Your task to perform on an android device: Go to wifi settings Image 0: 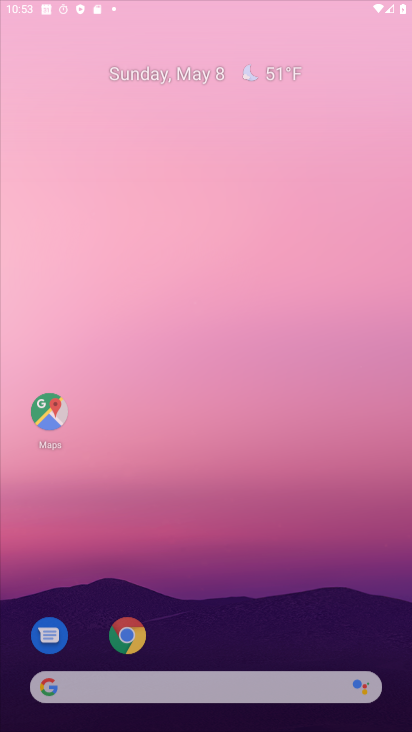
Step 0: click (287, 256)
Your task to perform on an android device: Go to wifi settings Image 1: 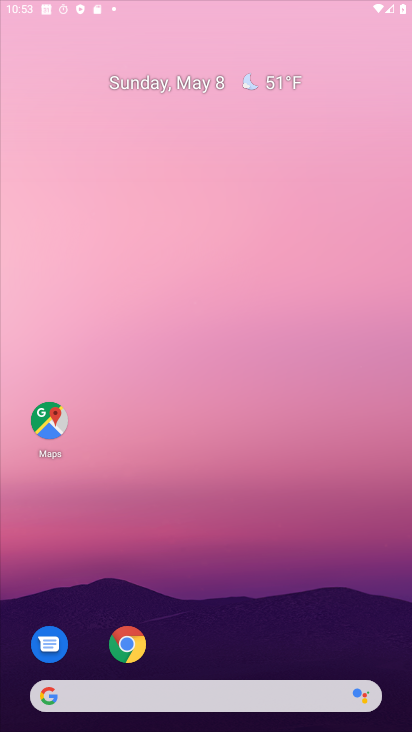
Step 1: drag from (278, 609) to (334, 230)
Your task to perform on an android device: Go to wifi settings Image 2: 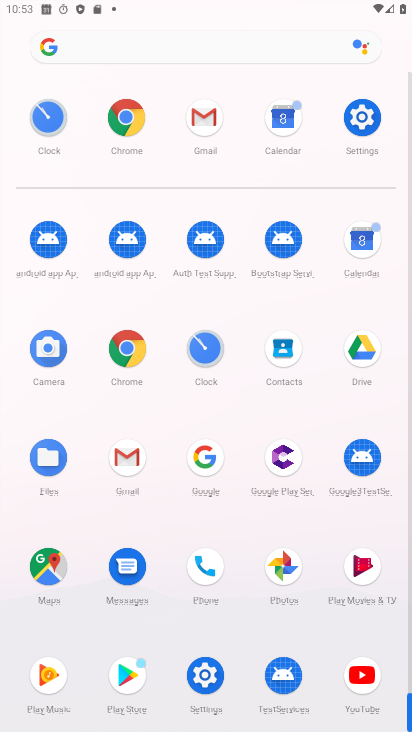
Step 2: click (130, 466)
Your task to perform on an android device: Go to wifi settings Image 3: 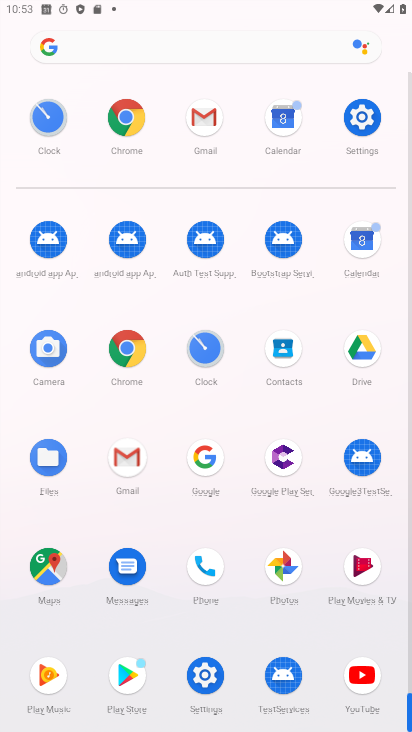
Step 3: click (129, 466)
Your task to perform on an android device: Go to wifi settings Image 4: 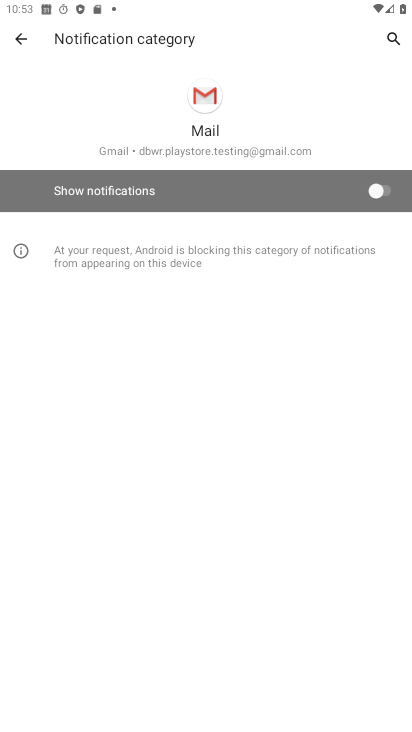
Step 4: click (23, 35)
Your task to perform on an android device: Go to wifi settings Image 5: 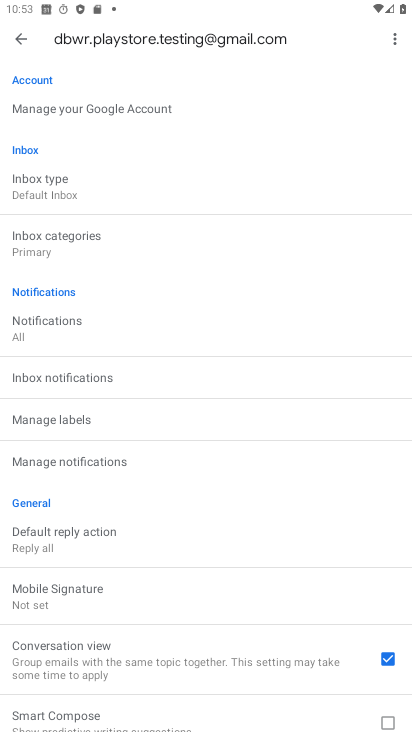
Step 5: press home button
Your task to perform on an android device: Go to wifi settings Image 6: 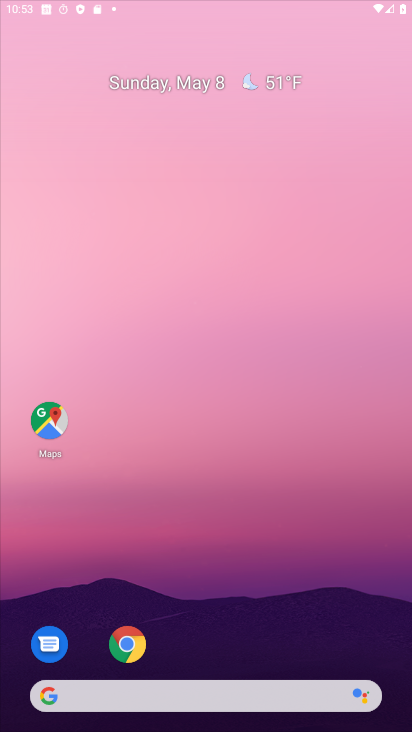
Step 6: drag from (223, 425) to (280, 75)
Your task to perform on an android device: Go to wifi settings Image 7: 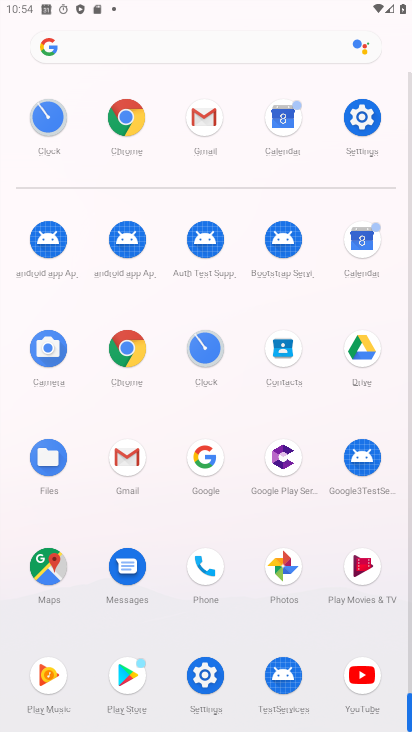
Step 7: click (355, 122)
Your task to perform on an android device: Go to wifi settings Image 8: 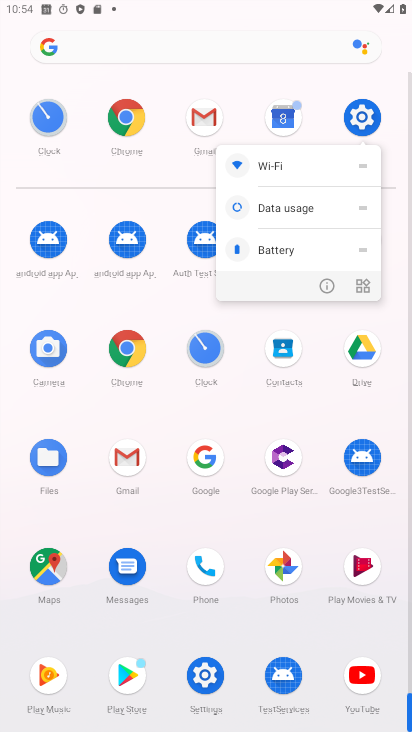
Step 8: click (324, 292)
Your task to perform on an android device: Go to wifi settings Image 9: 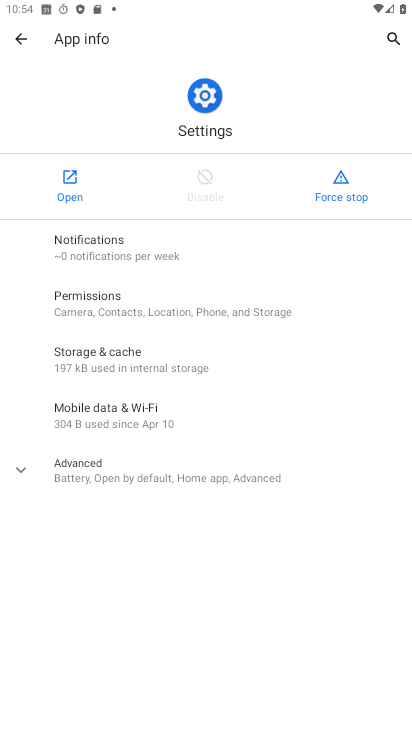
Step 9: click (75, 180)
Your task to perform on an android device: Go to wifi settings Image 10: 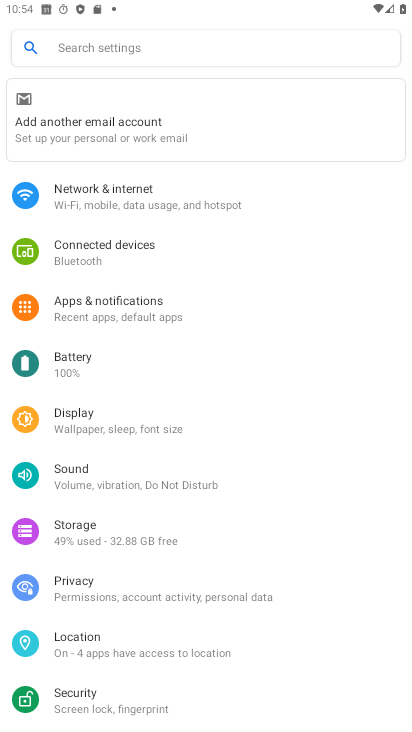
Step 10: click (136, 180)
Your task to perform on an android device: Go to wifi settings Image 11: 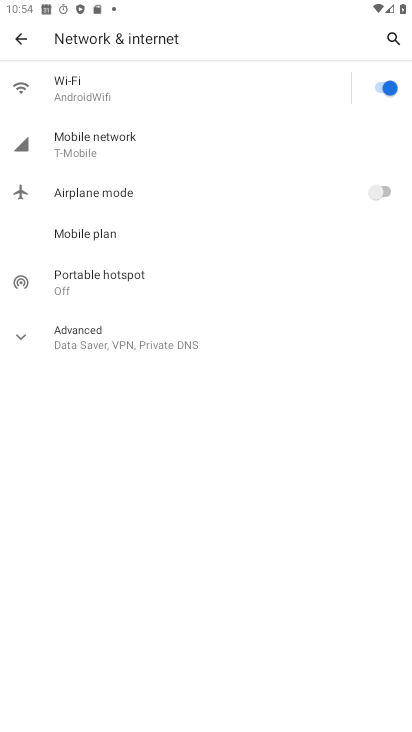
Step 11: click (151, 93)
Your task to perform on an android device: Go to wifi settings Image 12: 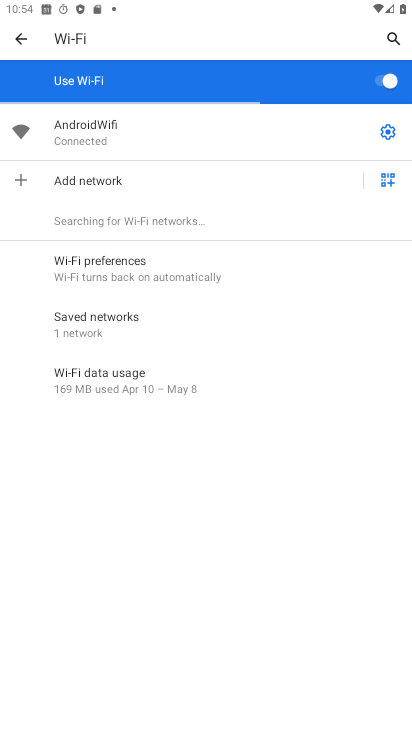
Step 12: task complete